Your task to perform on an android device: Open settings Image 0: 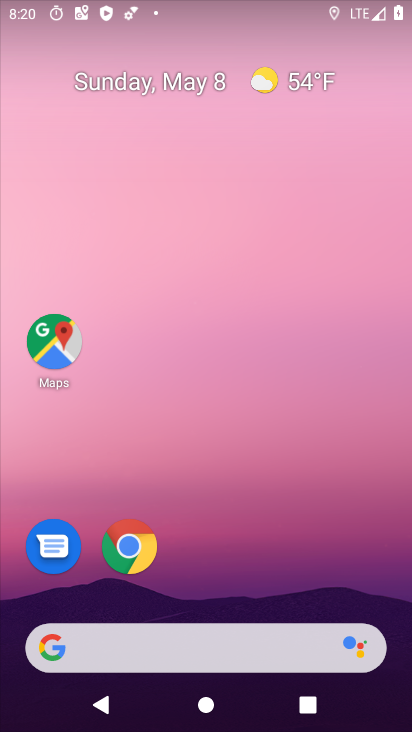
Step 0: drag from (368, 337) to (333, 212)
Your task to perform on an android device: Open settings Image 1: 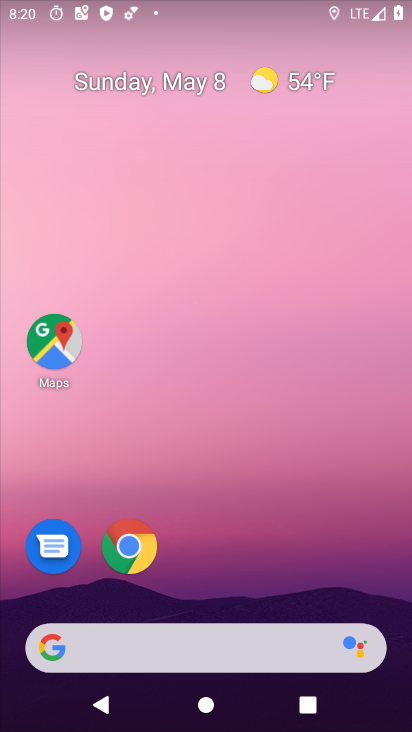
Step 1: drag from (406, 597) to (383, 212)
Your task to perform on an android device: Open settings Image 2: 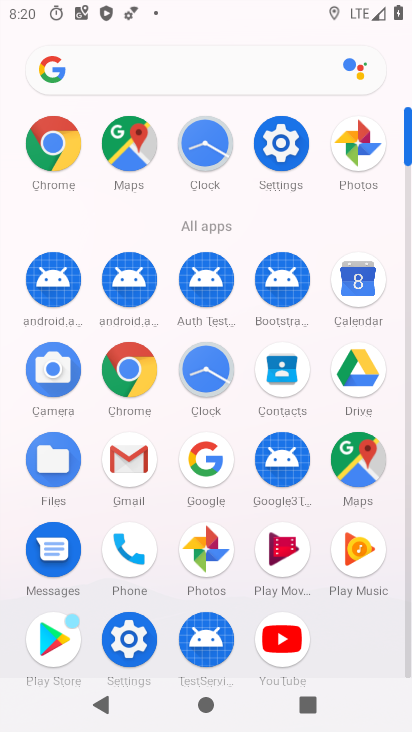
Step 2: click (280, 143)
Your task to perform on an android device: Open settings Image 3: 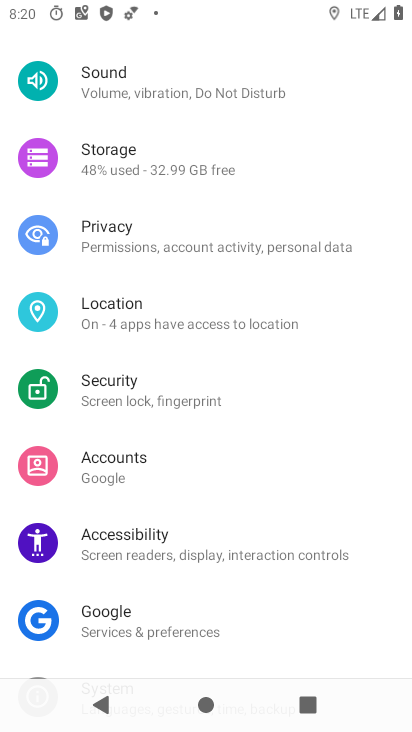
Step 3: task complete